Your task to perform on an android device: add a contact Image 0: 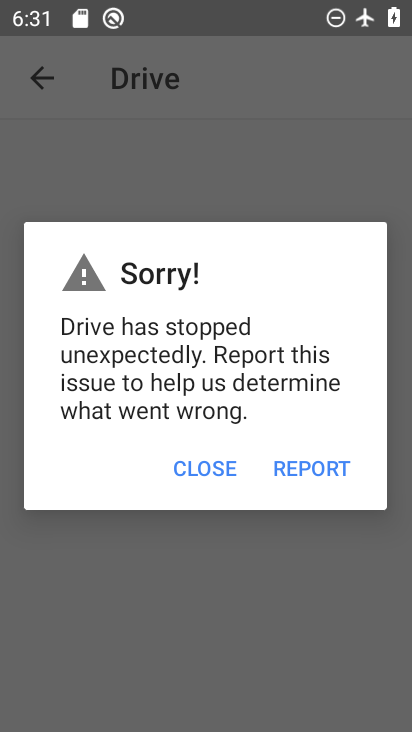
Step 0: press home button
Your task to perform on an android device: add a contact Image 1: 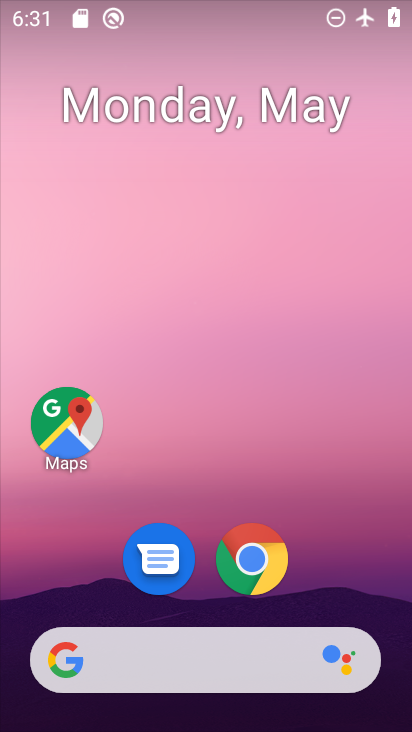
Step 1: drag from (172, 462) to (130, 24)
Your task to perform on an android device: add a contact Image 2: 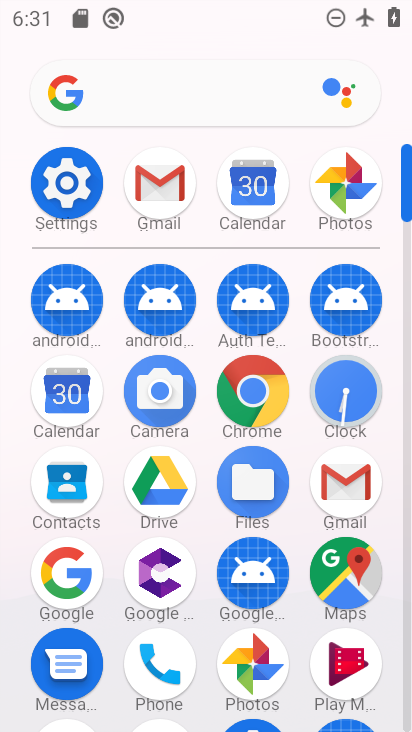
Step 2: click (83, 478)
Your task to perform on an android device: add a contact Image 3: 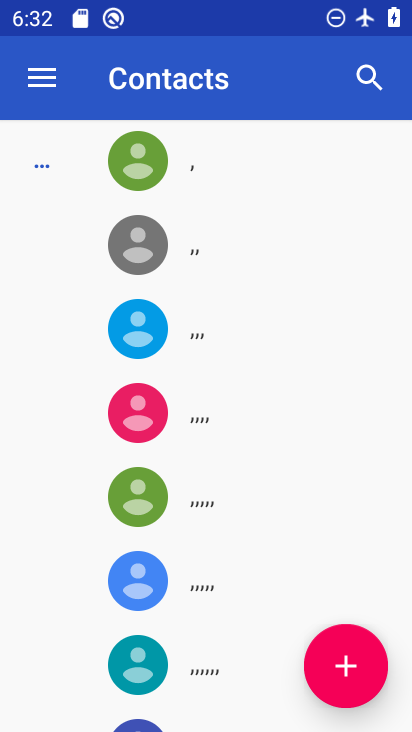
Step 3: click (338, 678)
Your task to perform on an android device: add a contact Image 4: 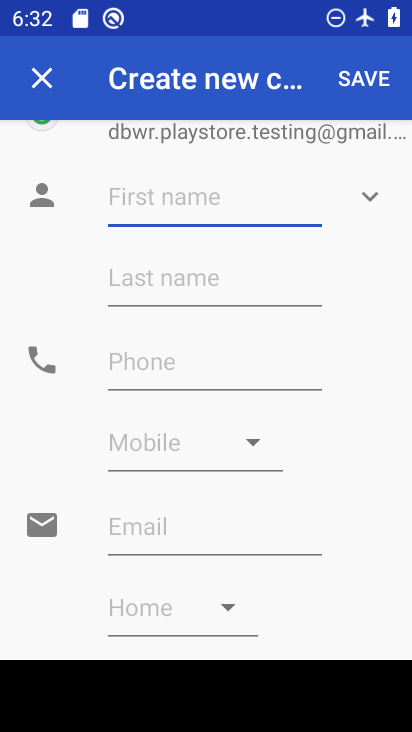
Step 4: type "jhkjhgdfgdsfyjuk"
Your task to perform on an android device: add a contact Image 5: 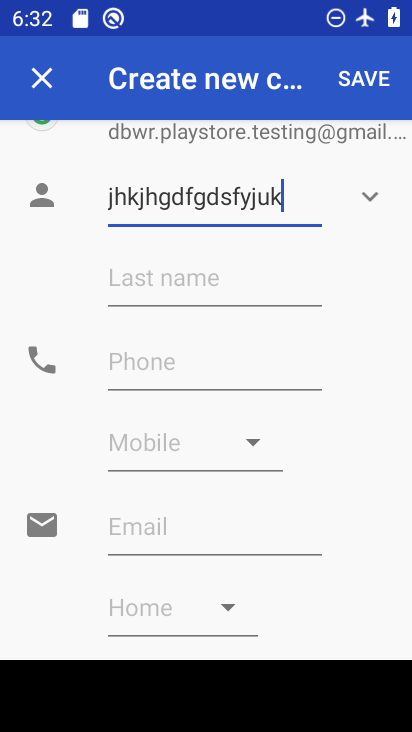
Step 5: click (180, 349)
Your task to perform on an android device: add a contact Image 6: 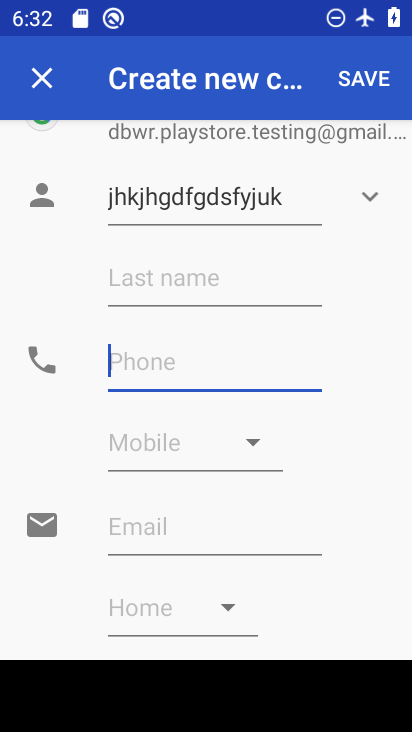
Step 6: type "076545678"
Your task to perform on an android device: add a contact Image 7: 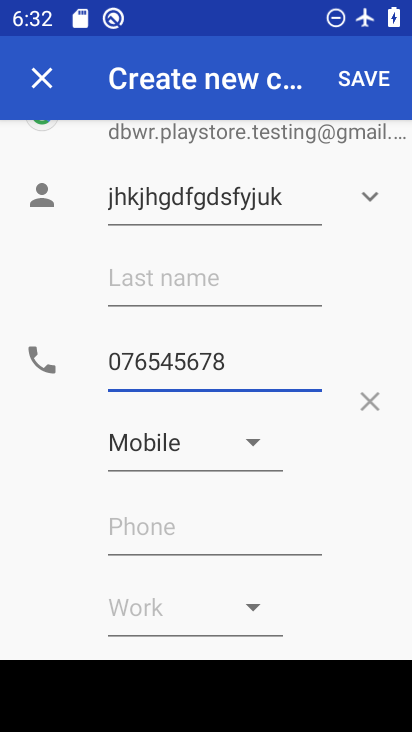
Step 7: click (386, 86)
Your task to perform on an android device: add a contact Image 8: 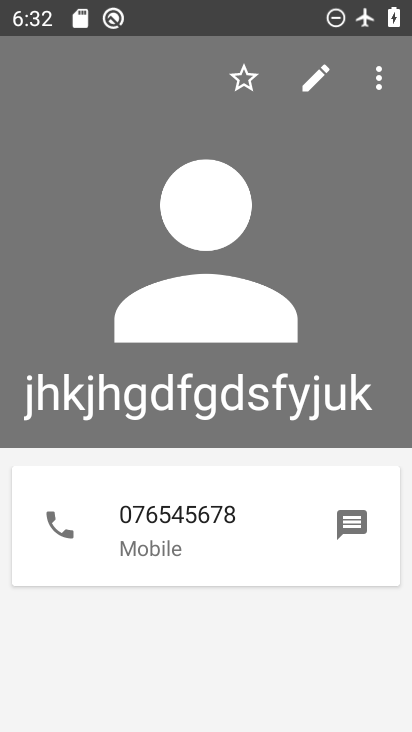
Step 8: task complete